Your task to perform on an android device: toggle location history Image 0: 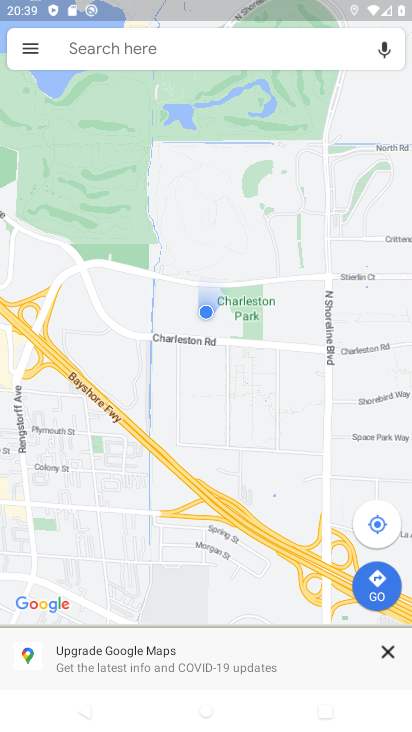
Step 0: press home button
Your task to perform on an android device: toggle location history Image 1: 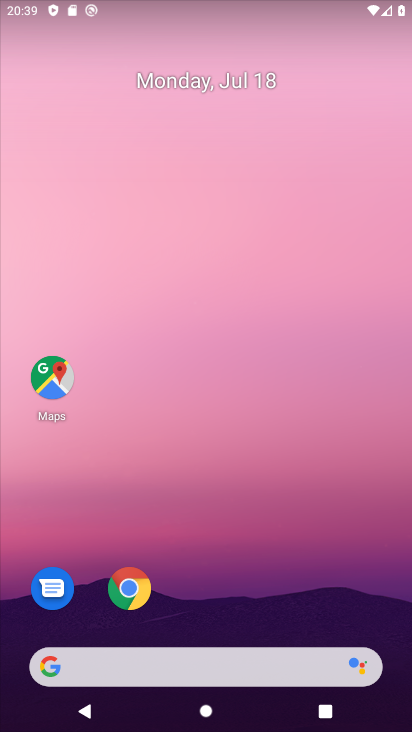
Step 1: drag from (201, 668) to (295, 150)
Your task to perform on an android device: toggle location history Image 2: 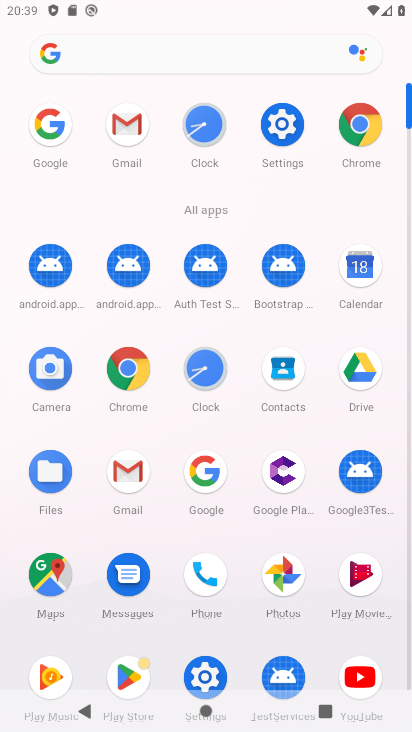
Step 2: click (56, 567)
Your task to perform on an android device: toggle location history Image 3: 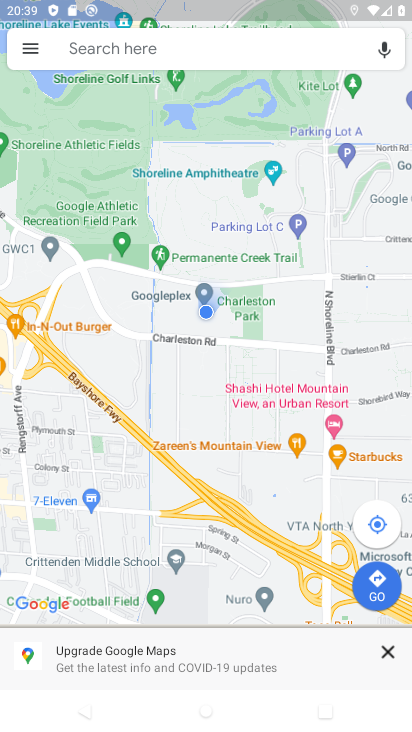
Step 3: click (390, 653)
Your task to perform on an android device: toggle location history Image 4: 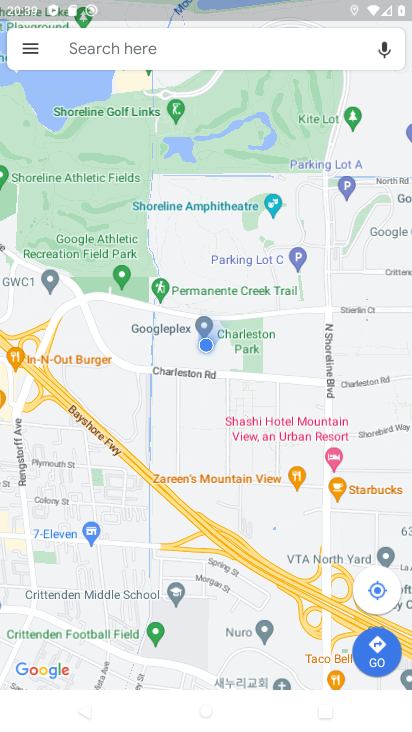
Step 4: click (26, 51)
Your task to perform on an android device: toggle location history Image 5: 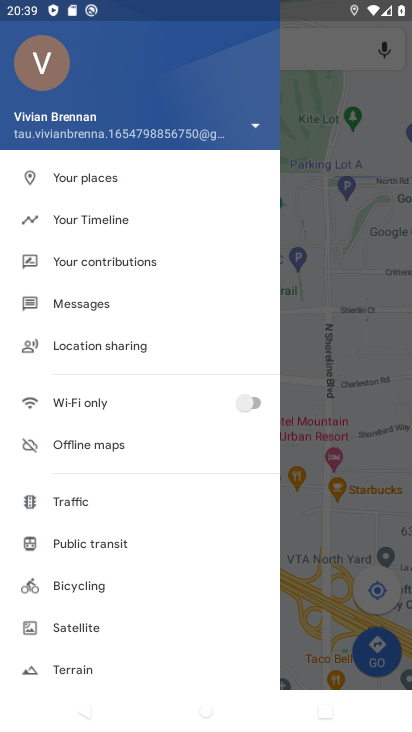
Step 5: click (114, 217)
Your task to perform on an android device: toggle location history Image 6: 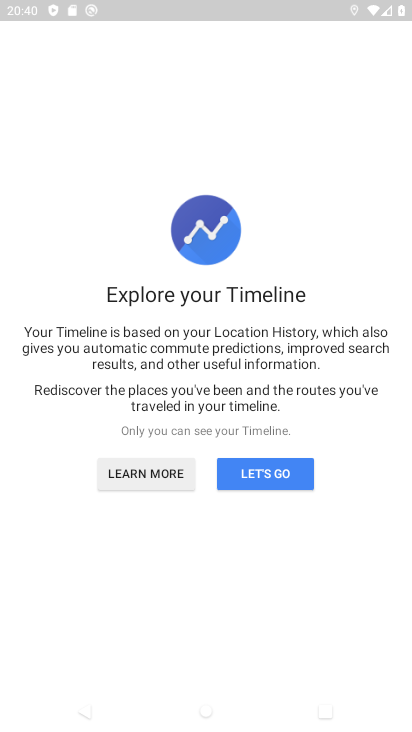
Step 6: click (253, 472)
Your task to perform on an android device: toggle location history Image 7: 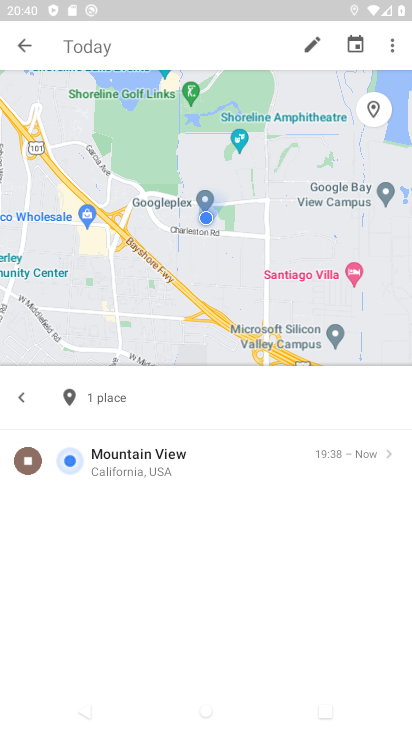
Step 7: click (390, 45)
Your task to perform on an android device: toggle location history Image 8: 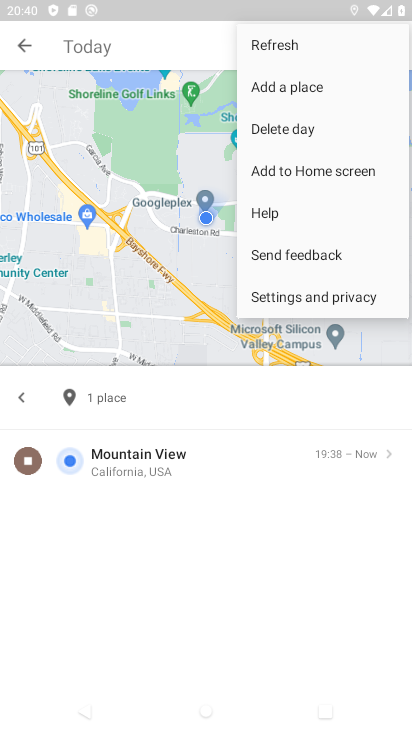
Step 8: click (309, 299)
Your task to perform on an android device: toggle location history Image 9: 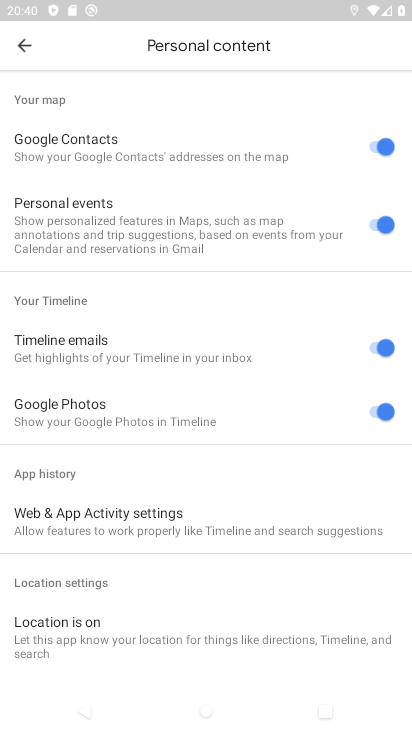
Step 9: drag from (239, 624) to (329, 55)
Your task to perform on an android device: toggle location history Image 10: 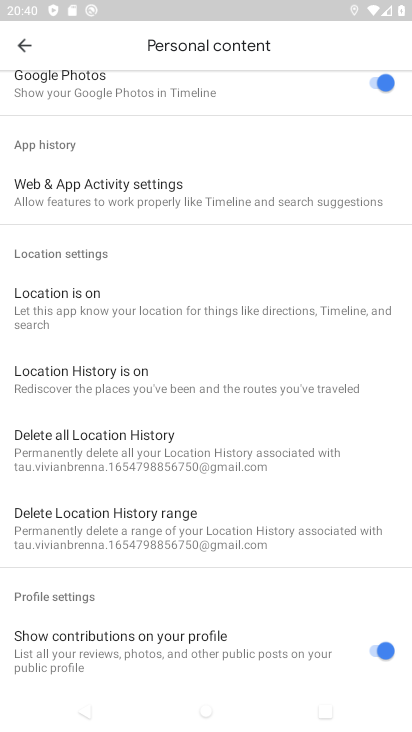
Step 10: click (131, 379)
Your task to perform on an android device: toggle location history Image 11: 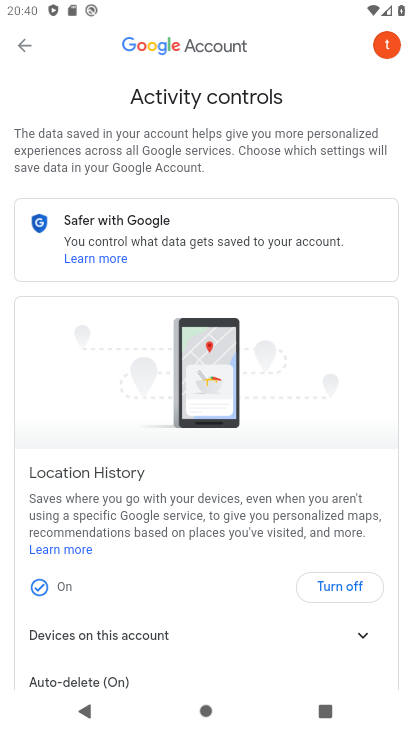
Step 11: click (337, 586)
Your task to perform on an android device: toggle location history Image 12: 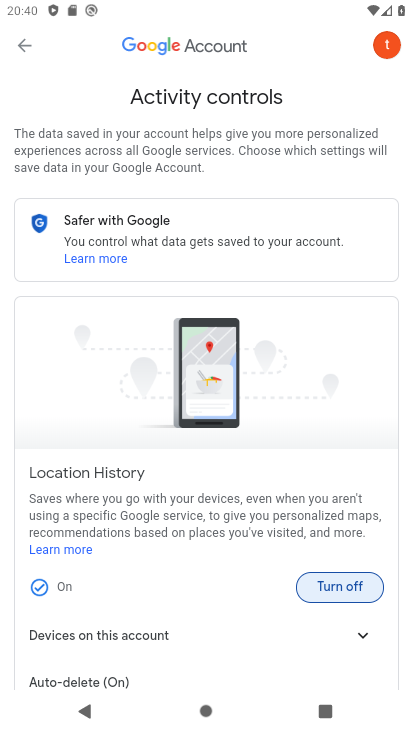
Step 12: click (341, 591)
Your task to perform on an android device: toggle location history Image 13: 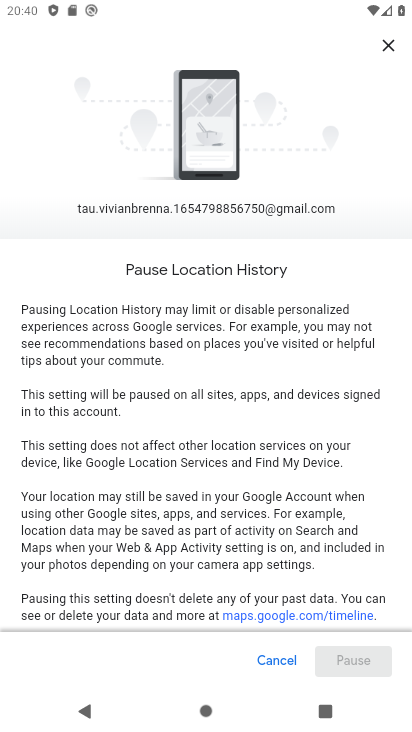
Step 13: drag from (241, 580) to (335, 117)
Your task to perform on an android device: toggle location history Image 14: 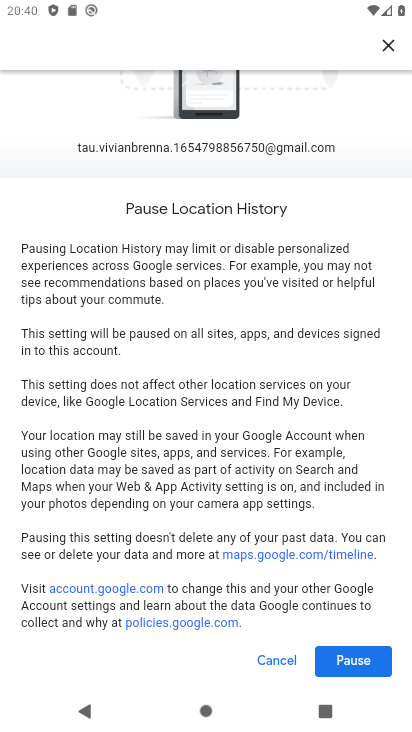
Step 14: click (354, 662)
Your task to perform on an android device: toggle location history Image 15: 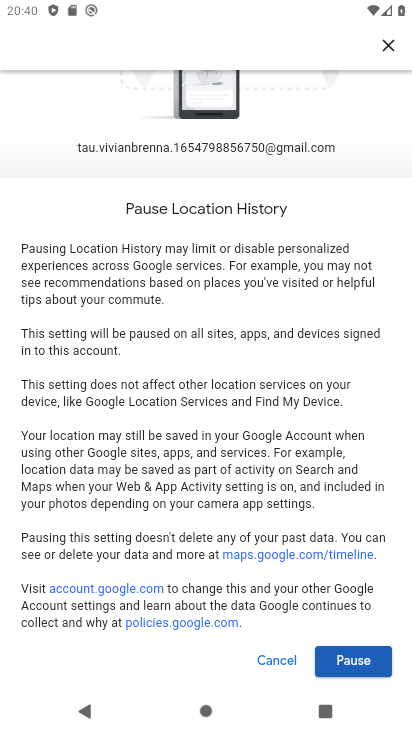
Step 15: click (357, 665)
Your task to perform on an android device: toggle location history Image 16: 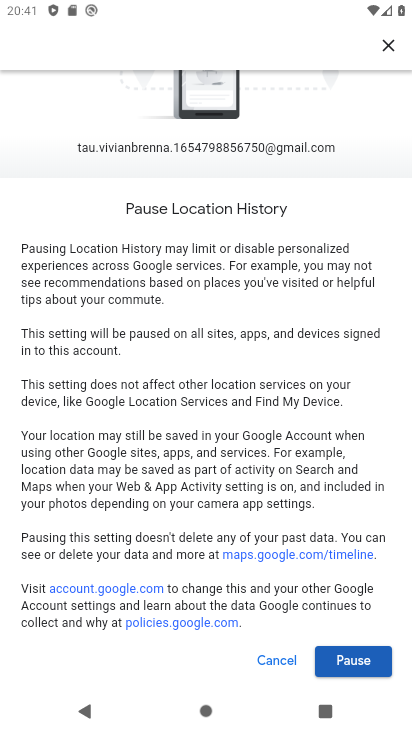
Step 16: click (349, 662)
Your task to perform on an android device: toggle location history Image 17: 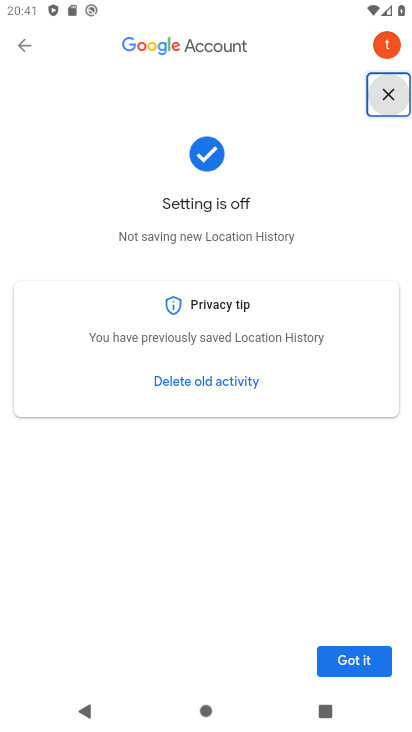
Step 17: click (352, 660)
Your task to perform on an android device: toggle location history Image 18: 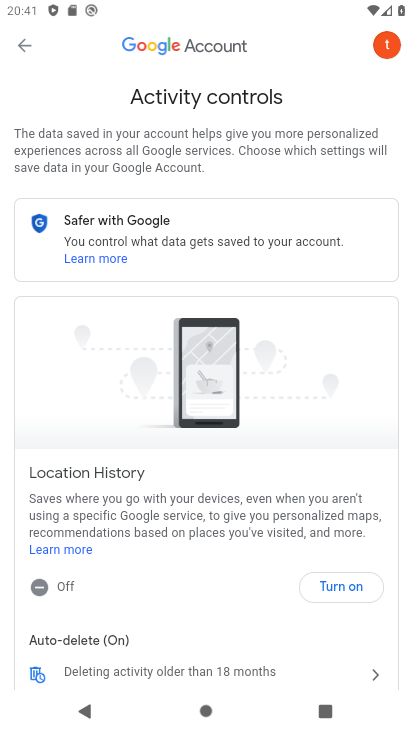
Step 18: task complete